Your task to perform on an android device: turn off notifications in google photos Image 0: 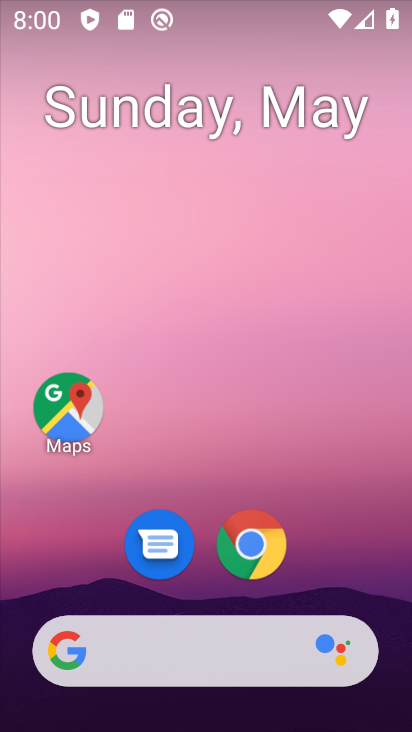
Step 0: drag from (337, 525) to (243, 26)
Your task to perform on an android device: turn off notifications in google photos Image 1: 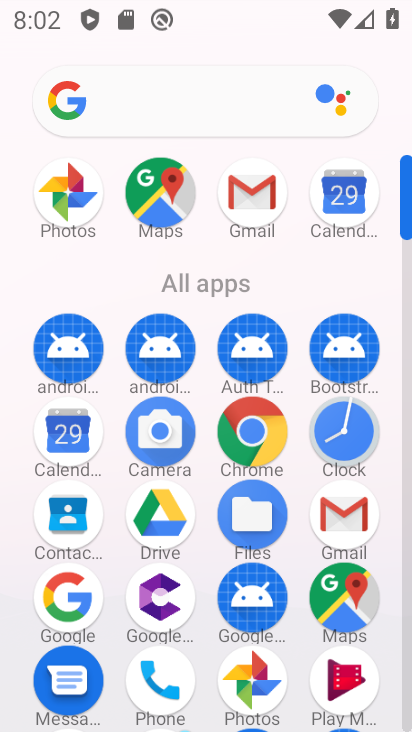
Step 1: click (61, 195)
Your task to perform on an android device: turn off notifications in google photos Image 2: 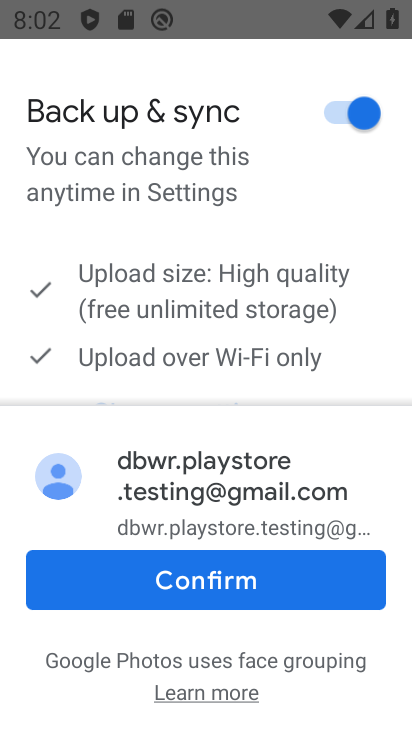
Step 2: click (187, 573)
Your task to perform on an android device: turn off notifications in google photos Image 3: 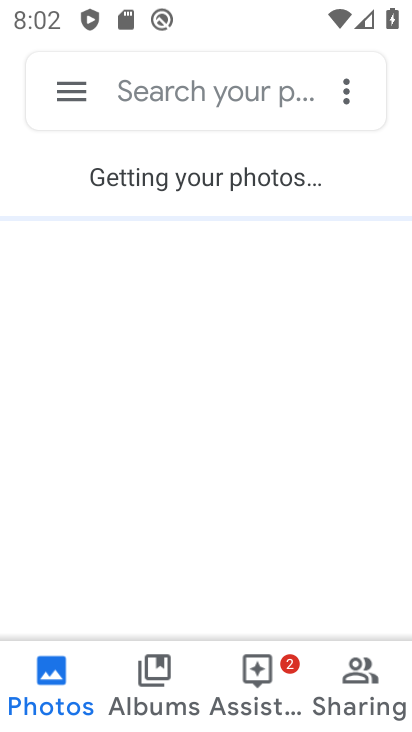
Step 3: click (74, 91)
Your task to perform on an android device: turn off notifications in google photos Image 4: 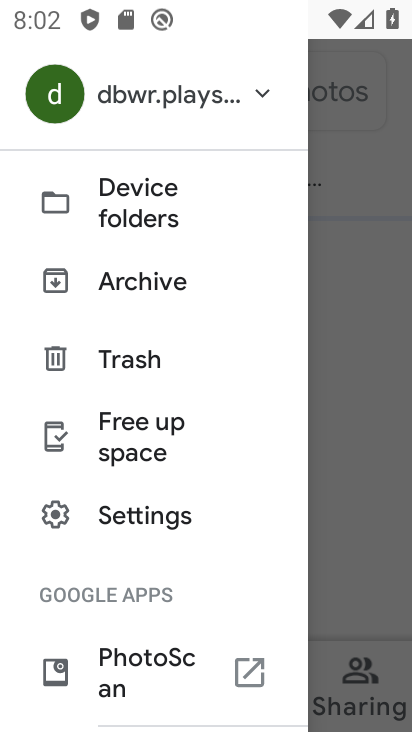
Step 4: drag from (97, 630) to (108, 280)
Your task to perform on an android device: turn off notifications in google photos Image 5: 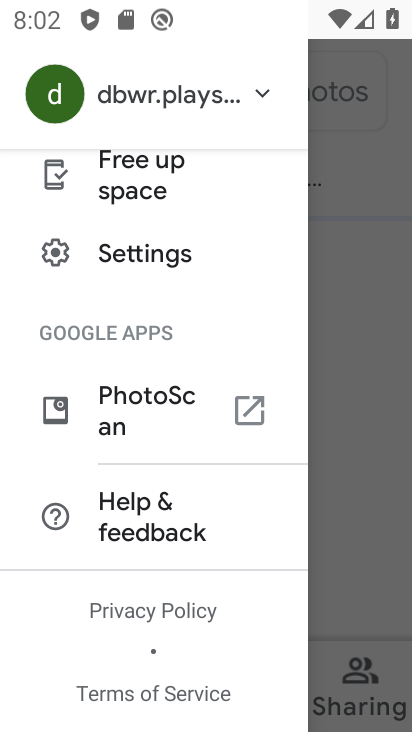
Step 5: click (115, 267)
Your task to perform on an android device: turn off notifications in google photos Image 6: 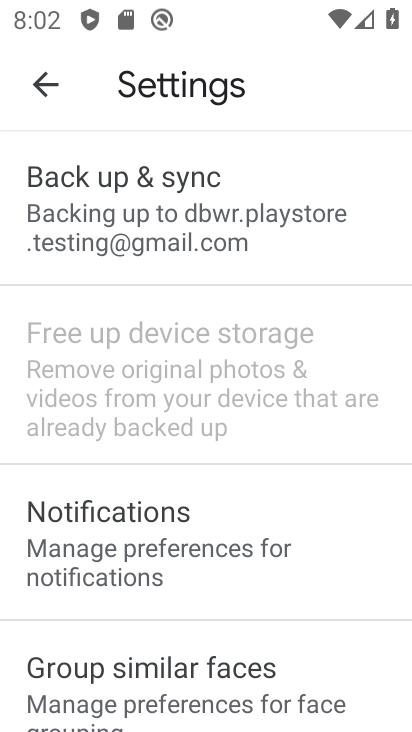
Step 6: click (182, 558)
Your task to perform on an android device: turn off notifications in google photos Image 7: 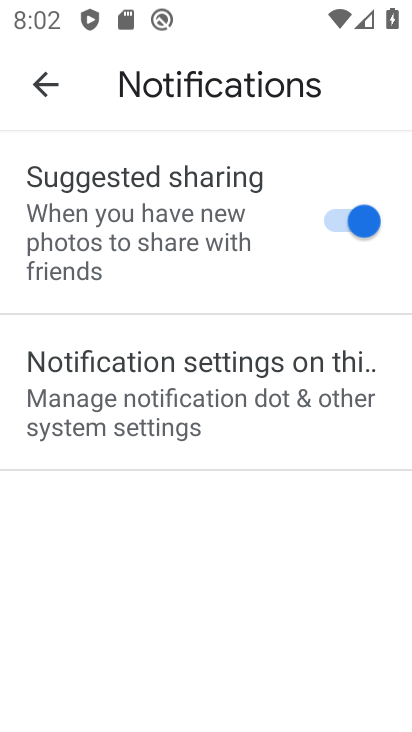
Step 7: click (158, 365)
Your task to perform on an android device: turn off notifications in google photos Image 8: 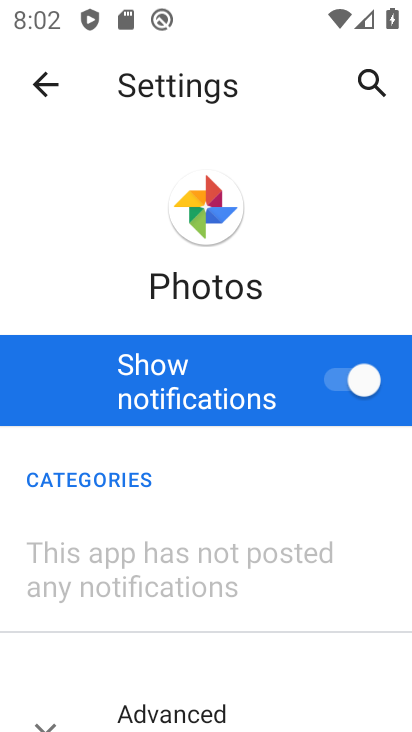
Step 8: click (356, 384)
Your task to perform on an android device: turn off notifications in google photos Image 9: 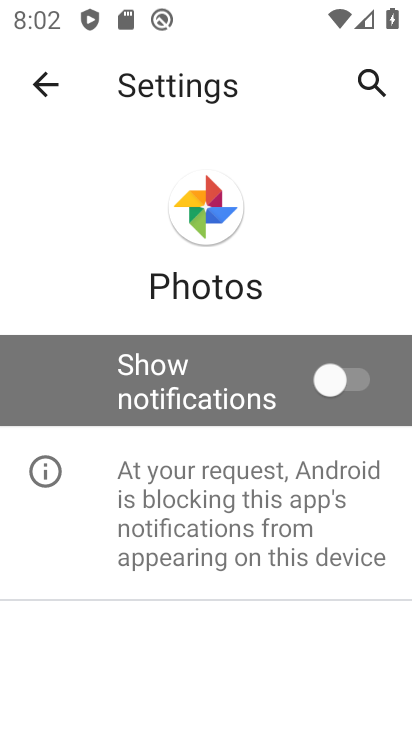
Step 9: task complete